Your task to perform on an android device: Set the phone to "Do not disturb". Image 0: 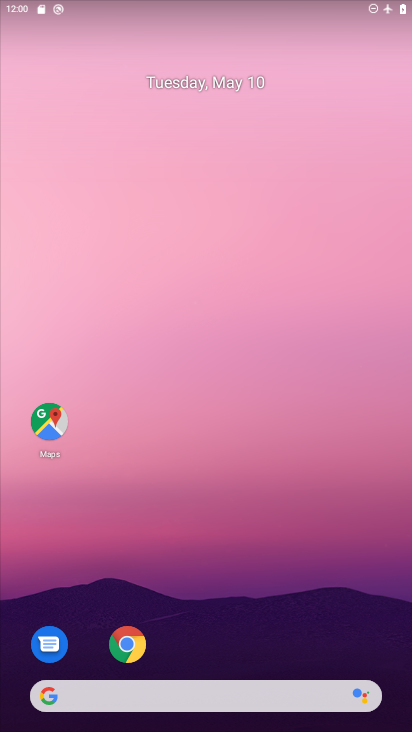
Step 0: drag from (232, 635) to (238, 150)
Your task to perform on an android device: Set the phone to "Do not disturb". Image 1: 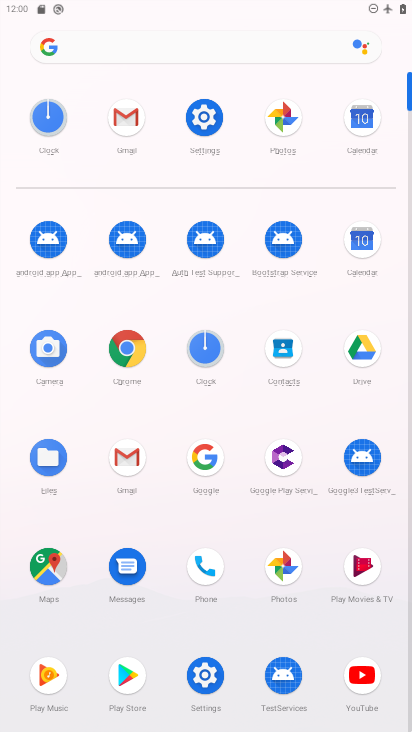
Step 1: click (193, 111)
Your task to perform on an android device: Set the phone to "Do not disturb". Image 2: 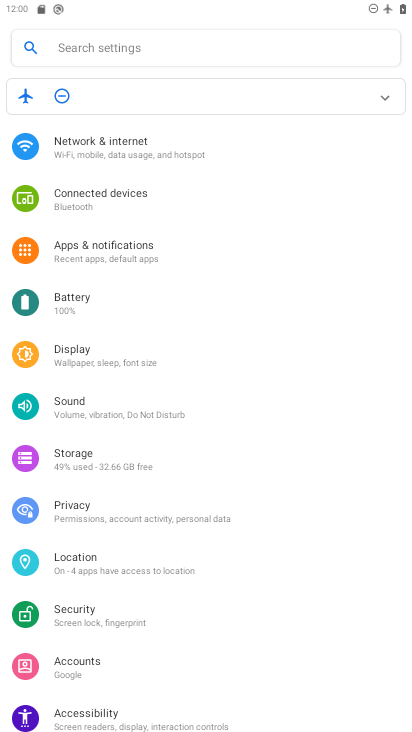
Step 2: click (111, 416)
Your task to perform on an android device: Set the phone to "Do not disturb". Image 3: 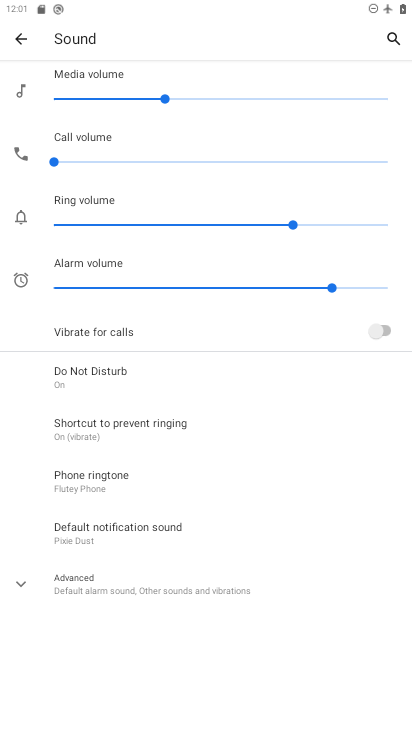
Step 3: click (105, 382)
Your task to perform on an android device: Set the phone to "Do not disturb". Image 4: 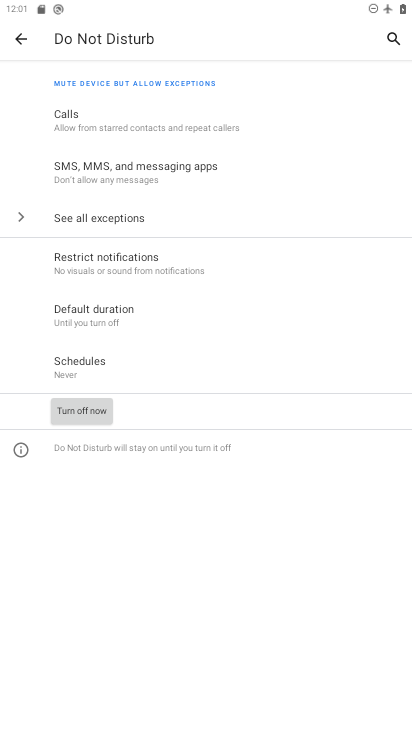
Step 4: task complete